Your task to perform on an android device: toggle location history Image 0: 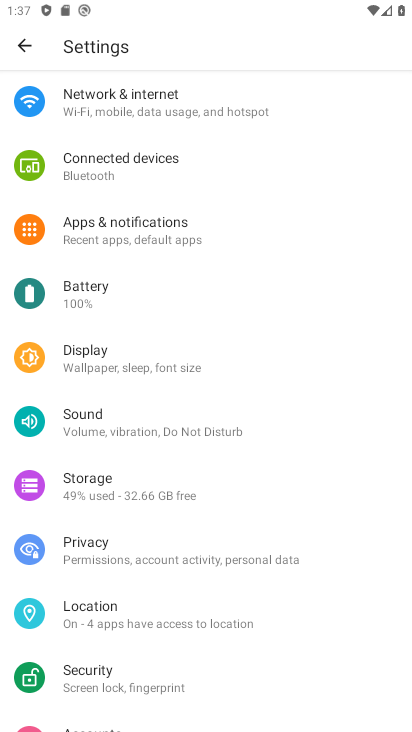
Step 0: click (119, 618)
Your task to perform on an android device: toggle location history Image 1: 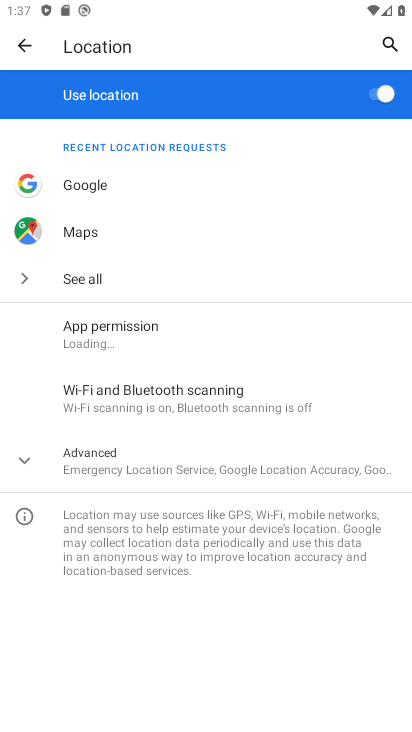
Step 1: click (73, 464)
Your task to perform on an android device: toggle location history Image 2: 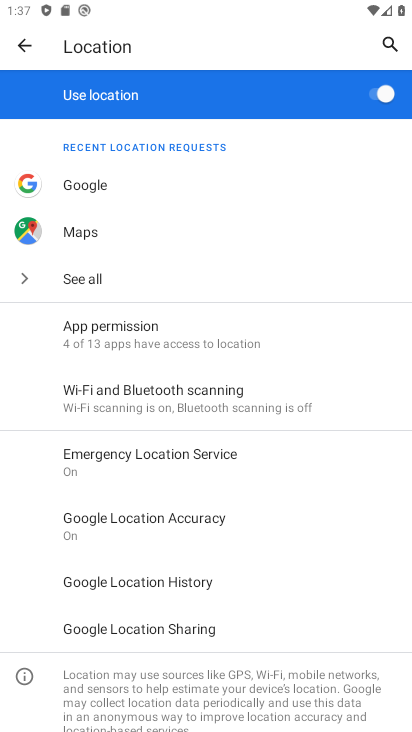
Step 2: click (126, 583)
Your task to perform on an android device: toggle location history Image 3: 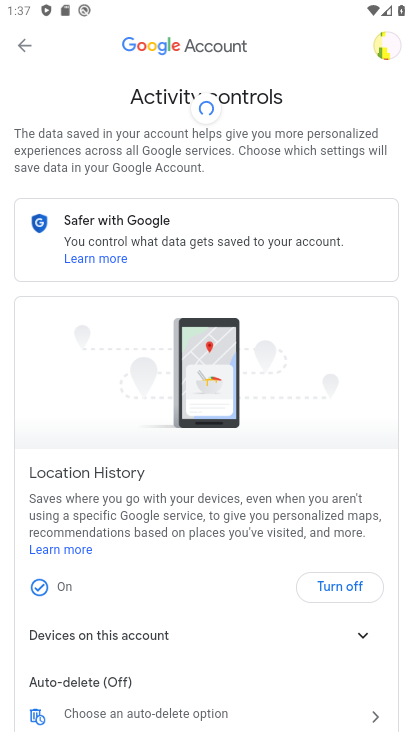
Step 3: click (319, 586)
Your task to perform on an android device: toggle location history Image 4: 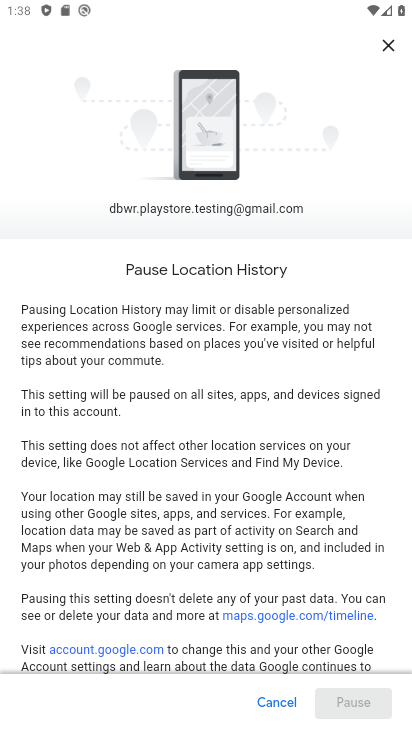
Step 4: drag from (296, 611) to (340, 228)
Your task to perform on an android device: toggle location history Image 5: 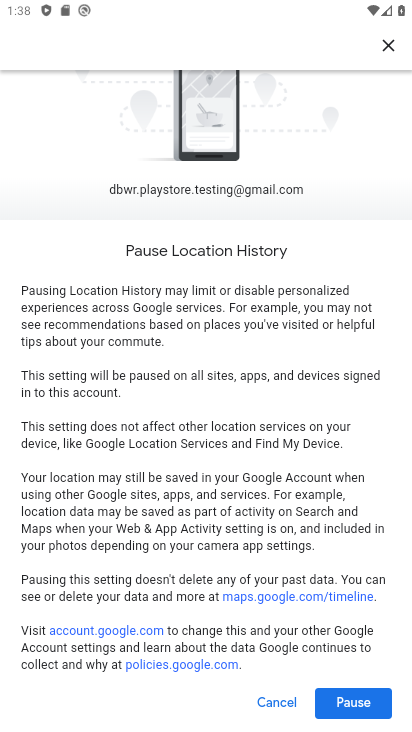
Step 5: click (337, 706)
Your task to perform on an android device: toggle location history Image 6: 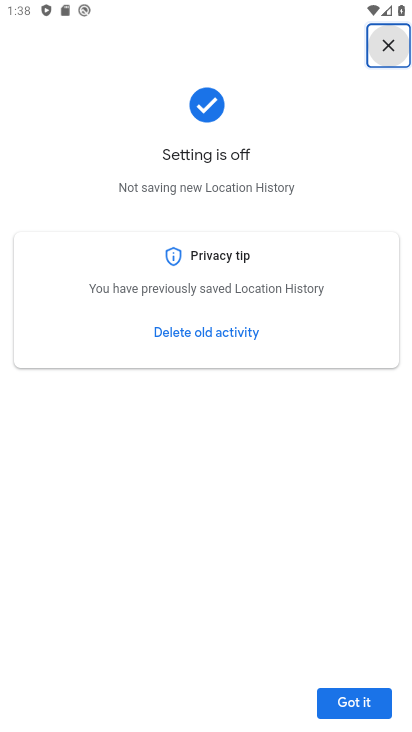
Step 6: task complete